Your task to perform on an android device: Go to Amazon Image 0: 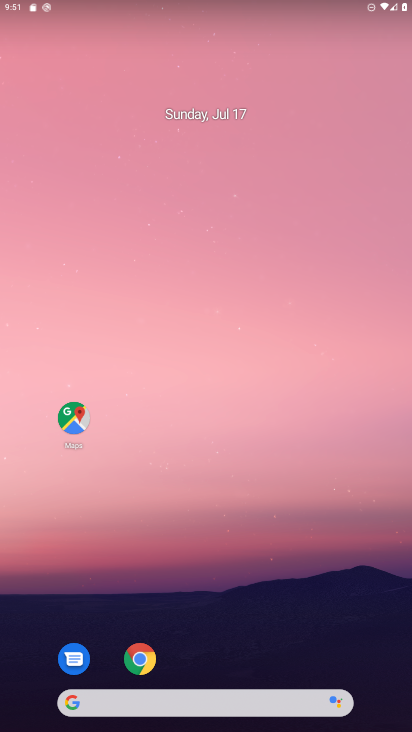
Step 0: click (144, 653)
Your task to perform on an android device: Go to Amazon Image 1: 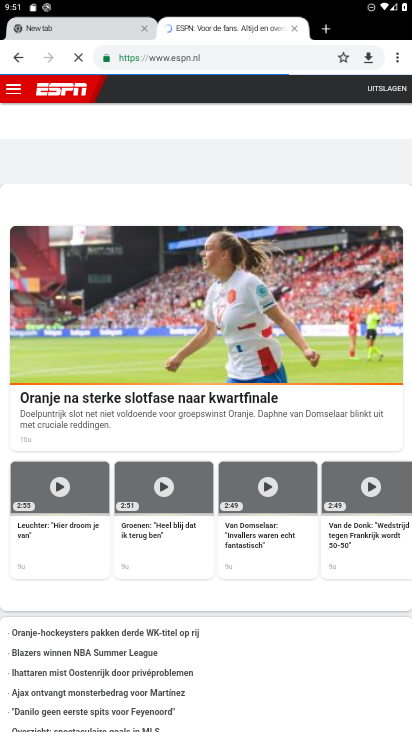
Step 1: click (202, 54)
Your task to perform on an android device: Go to Amazon Image 2: 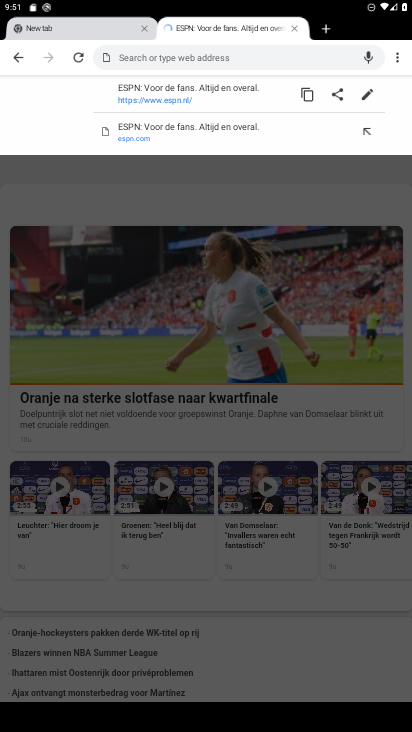
Step 2: type "amazon"
Your task to perform on an android device: Go to Amazon Image 3: 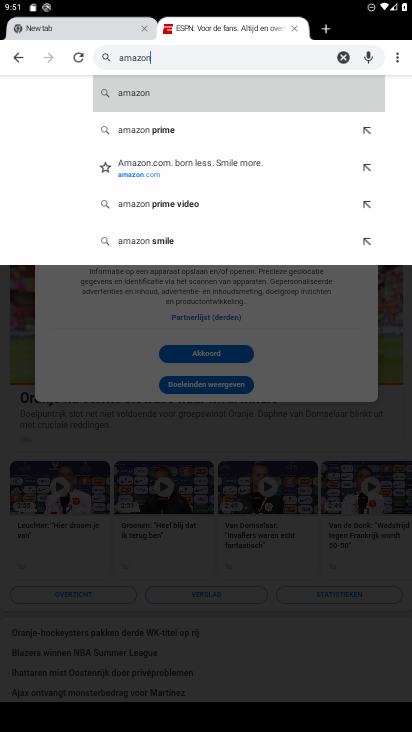
Step 3: click (156, 93)
Your task to perform on an android device: Go to Amazon Image 4: 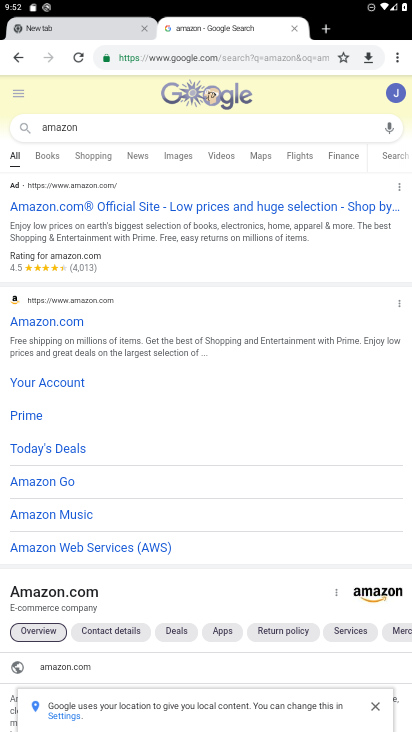
Step 4: click (63, 209)
Your task to perform on an android device: Go to Amazon Image 5: 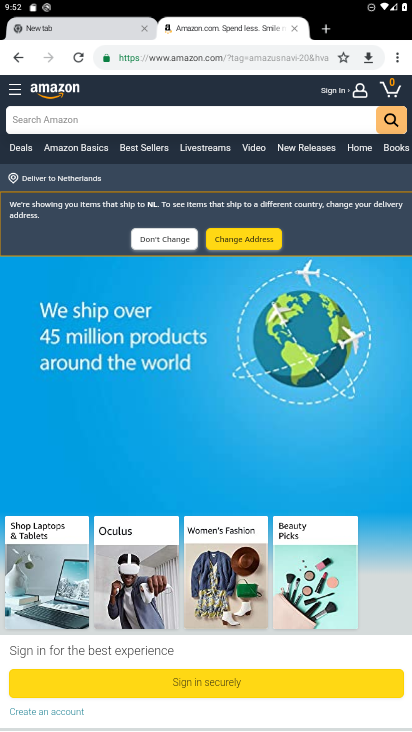
Step 5: task complete